Your task to perform on an android device: Open calendar and show me the fourth week of next month Image 0: 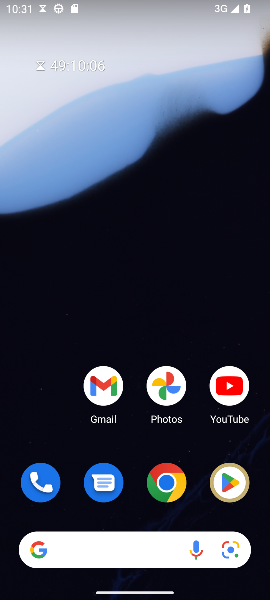
Step 0: drag from (154, 485) to (111, 163)
Your task to perform on an android device: Open calendar and show me the fourth week of next month Image 1: 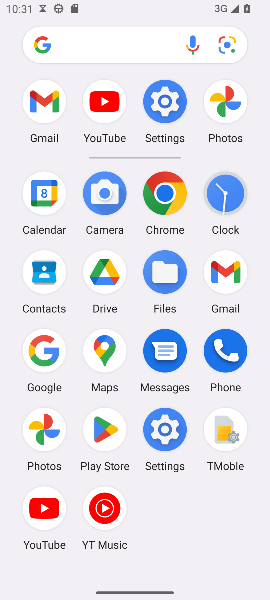
Step 1: click (44, 195)
Your task to perform on an android device: Open calendar and show me the fourth week of next month Image 2: 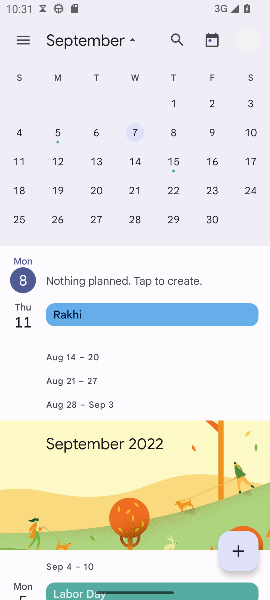
Step 2: drag from (225, 207) to (15, 174)
Your task to perform on an android device: Open calendar and show me the fourth week of next month Image 3: 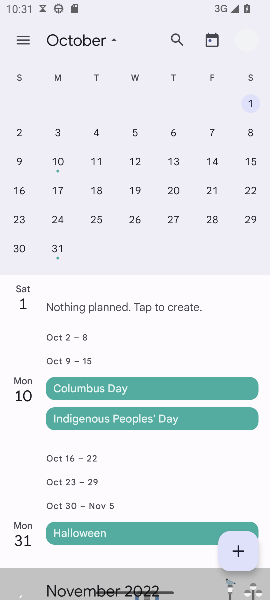
Step 3: click (210, 222)
Your task to perform on an android device: Open calendar and show me the fourth week of next month Image 4: 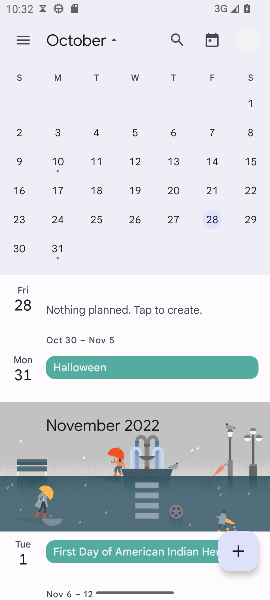
Step 4: task complete